Your task to perform on an android device: Search for "usb-c to usb-b" on ebay.com, select the first entry, and add it to the cart. Image 0: 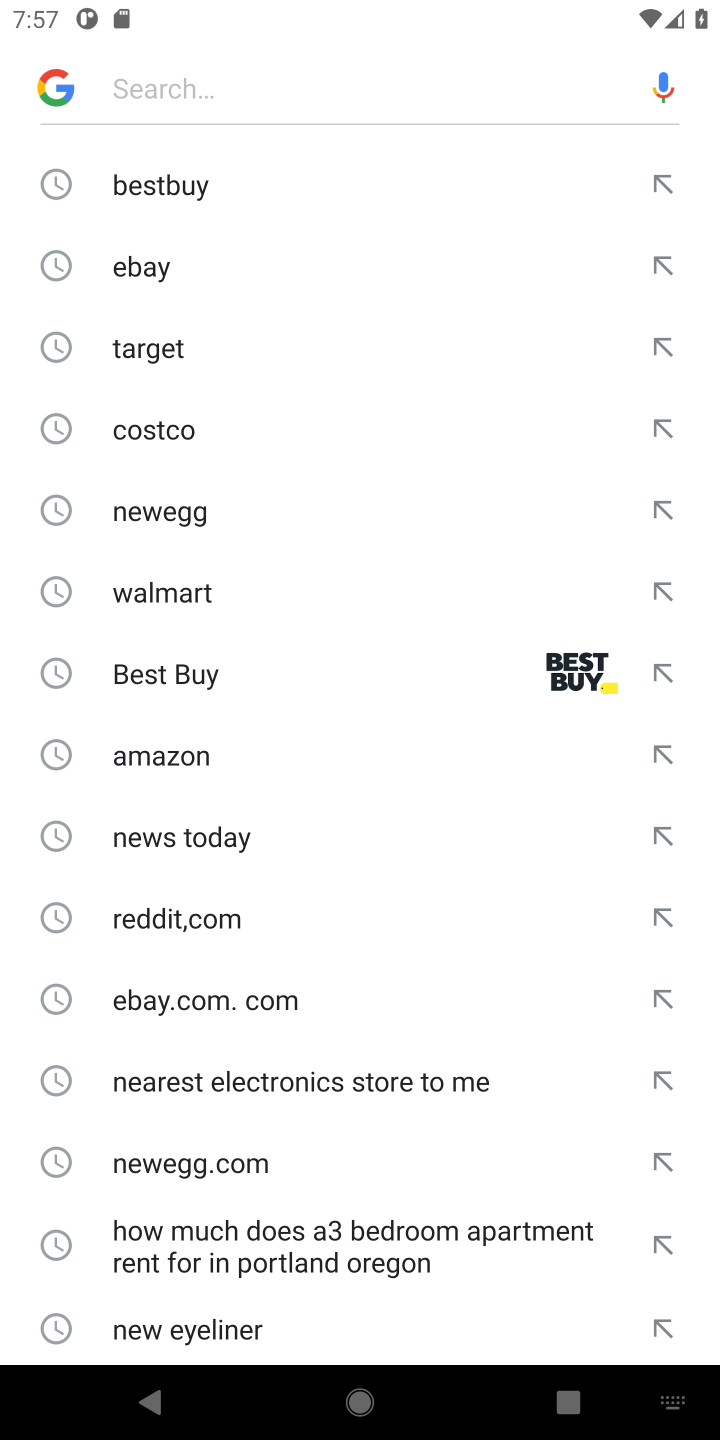
Step 0: press home button
Your task to perform on an android device: Search for "usb-c to usb-b" on ebay.com, select the first entry, and add it to the cart. Image 1: 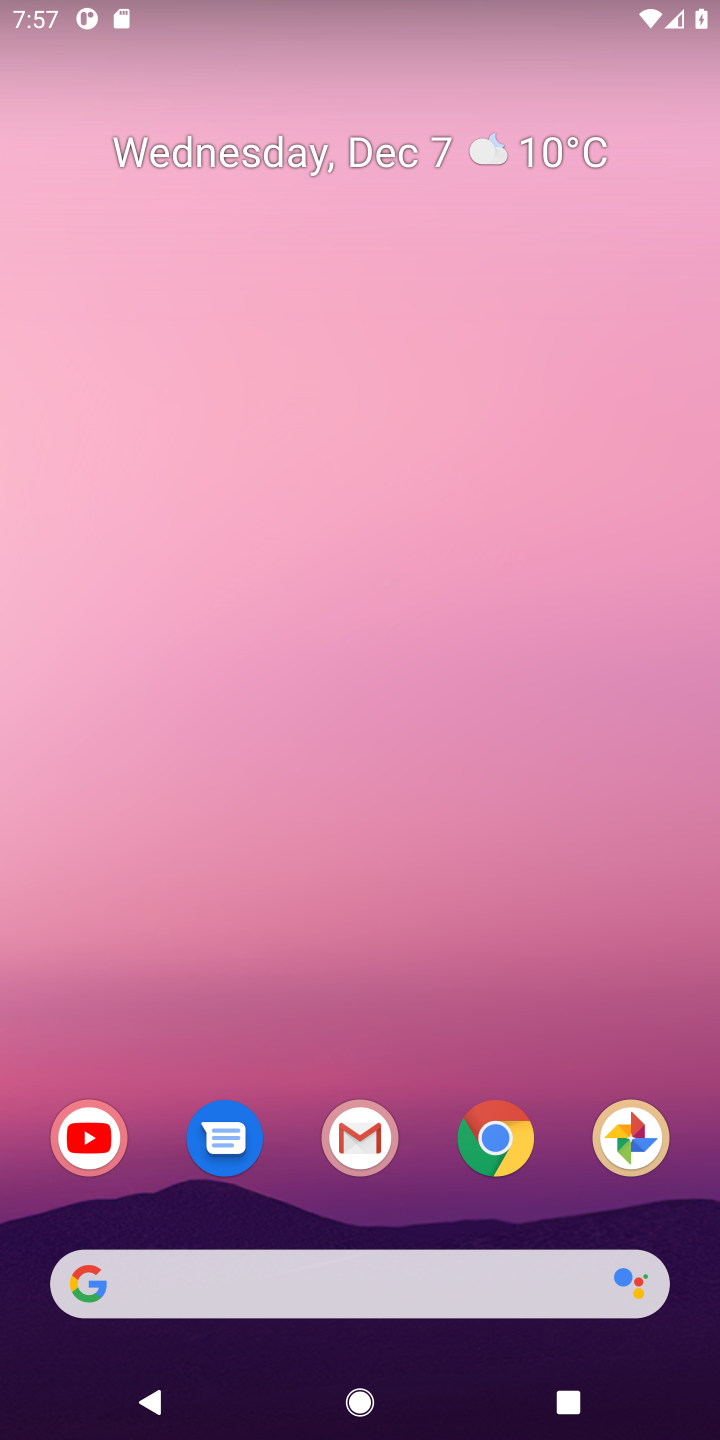
Step 1: click (250, 1280)
Your task to perform on an android device: Search for "usb-c to usb-b" on ebay.com, select the first entry, and add it to the cart. Image 2: 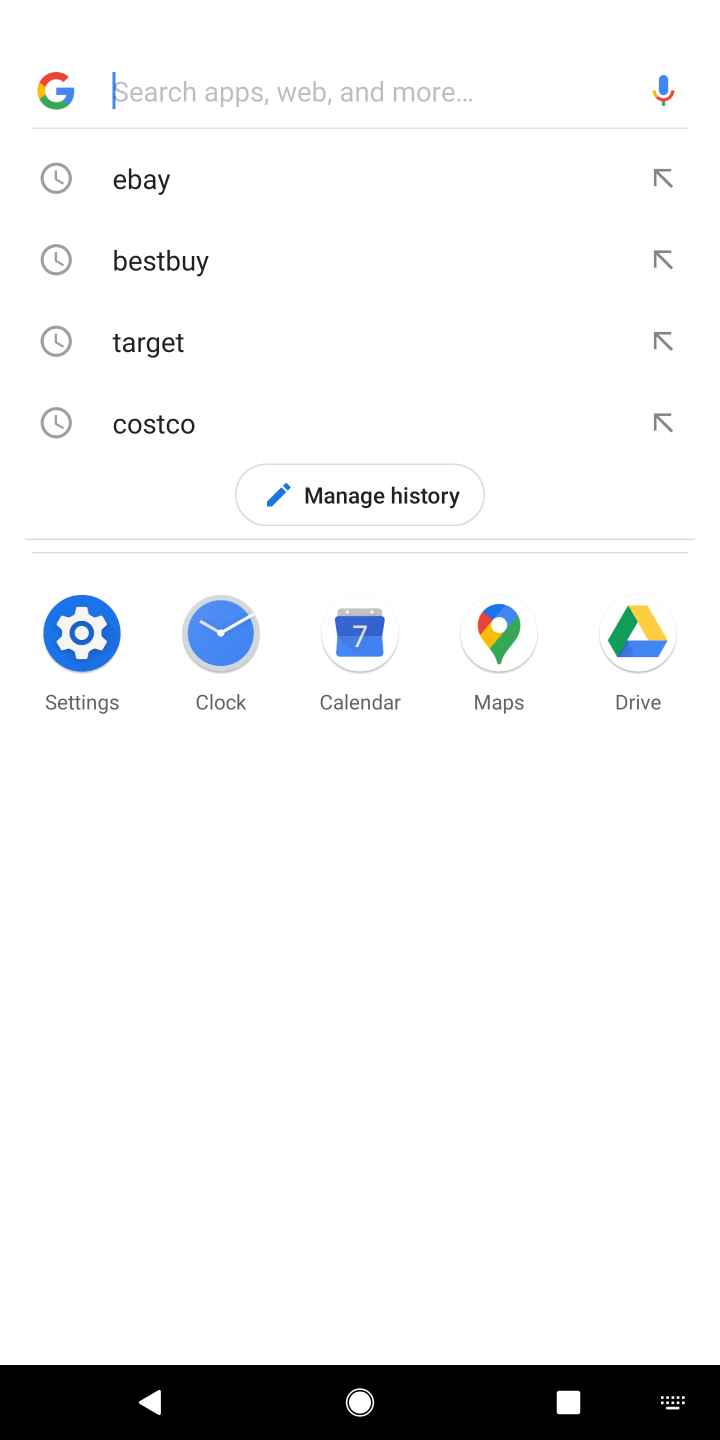
Step 2: click (145, 170)
Your task to perform on an android device: Search for "usb-c to usb-b" on ebay.com, select the first entry, and add it to the cart. Image 3: 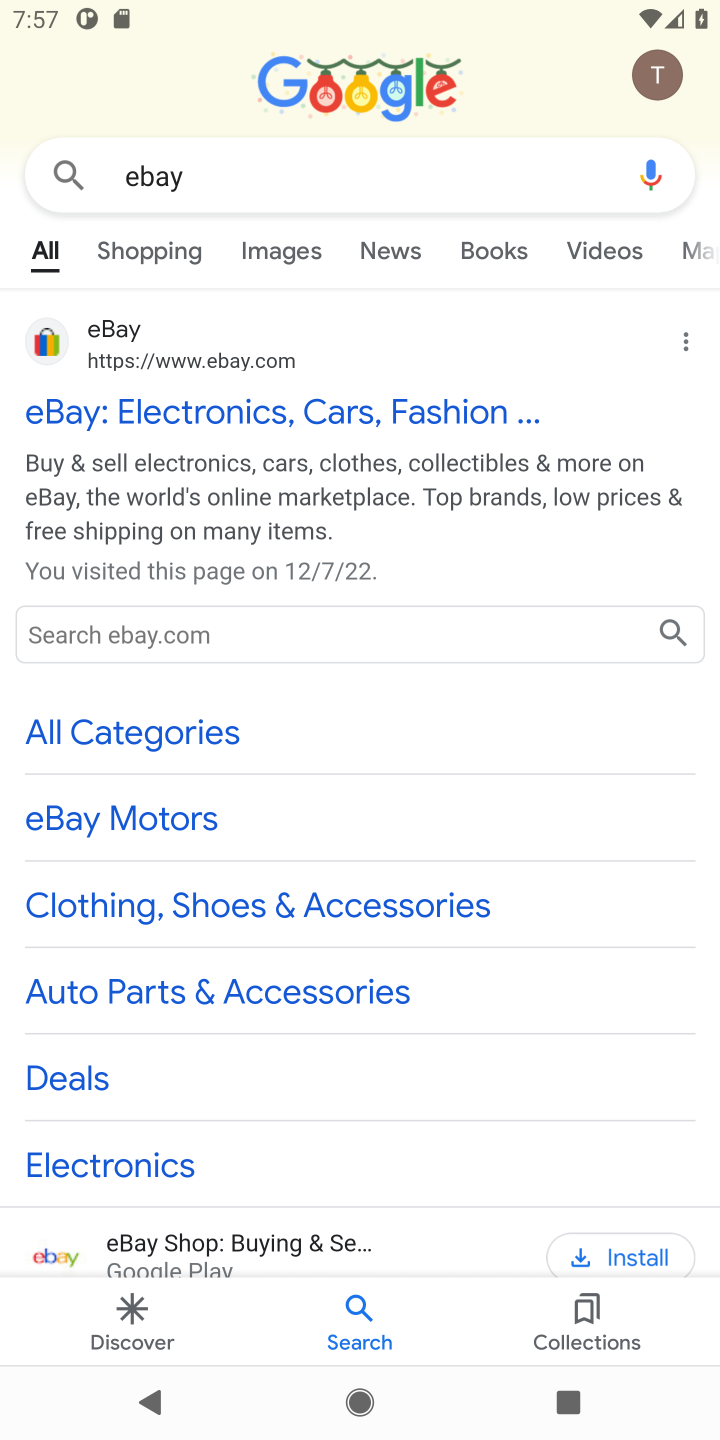
Step 3: click (352, 416)
Your task to perform on an android device: Search for "usb-c to usb-b" on ebay.com, select the first entry, and add it to the cart. Image 4: 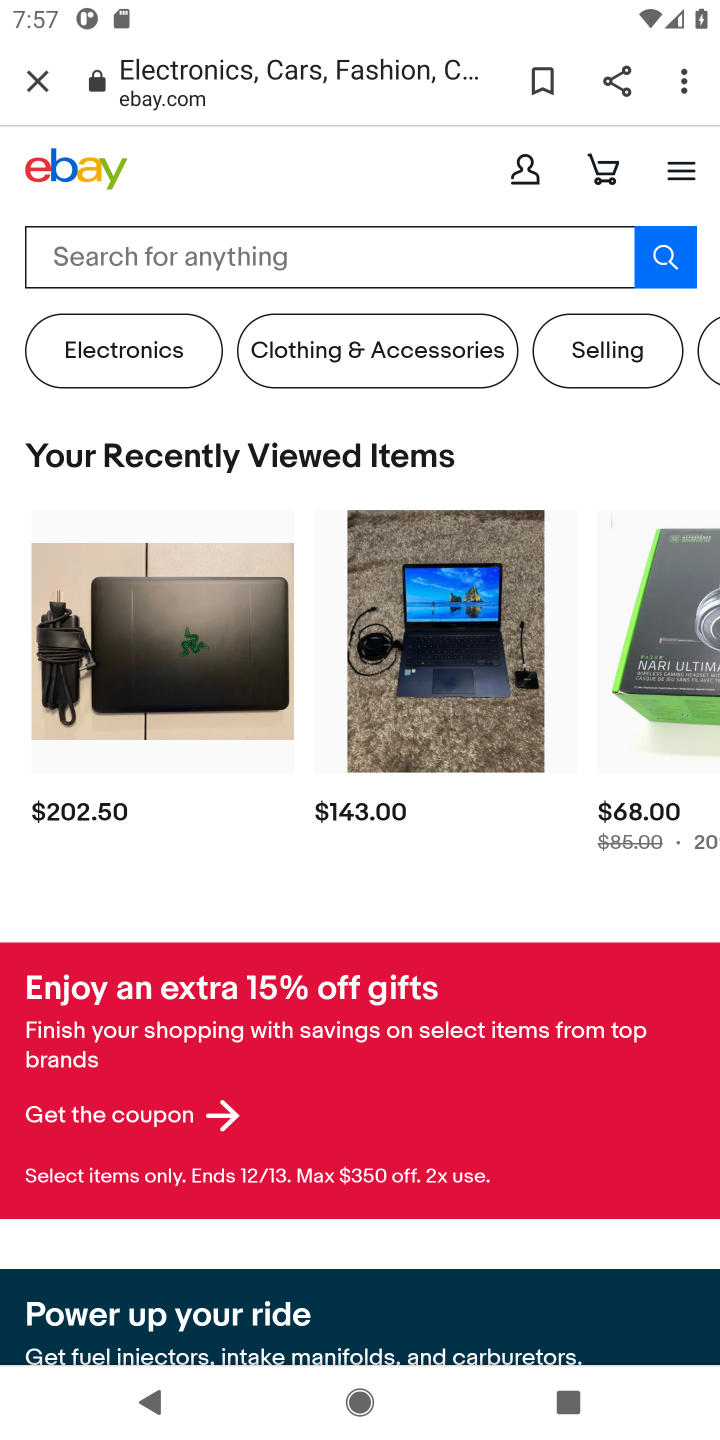
Step 4: click (327, 254)
Your task to perform on an android device: Search for "usb-c to usb-b" on ebay.com, select the first entry, and add it to the cart. Image 5: 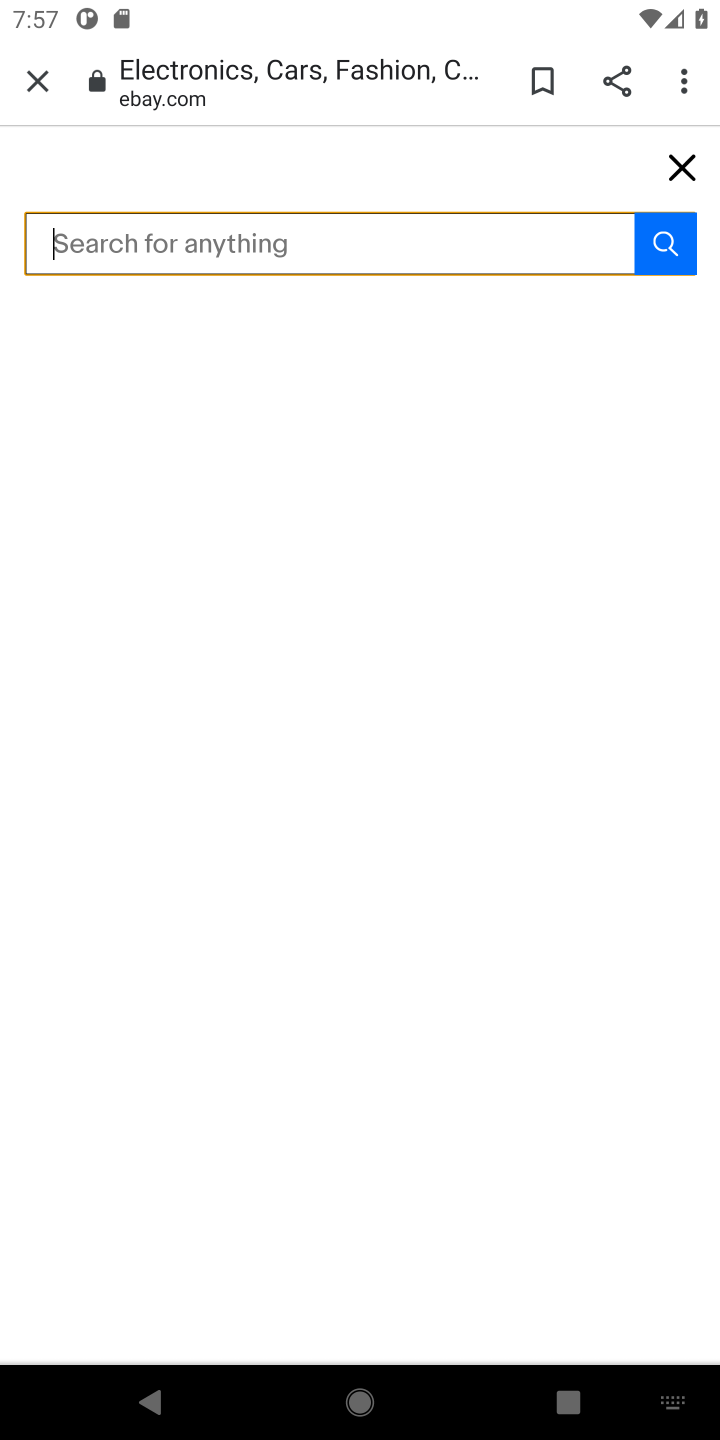
Step 5: type "usb-c to usb-b"
Your task to perform on an android device: Search for "usb-c to usb-b" on ebay.com, select the first entry, and add it to the cart. Image 6: 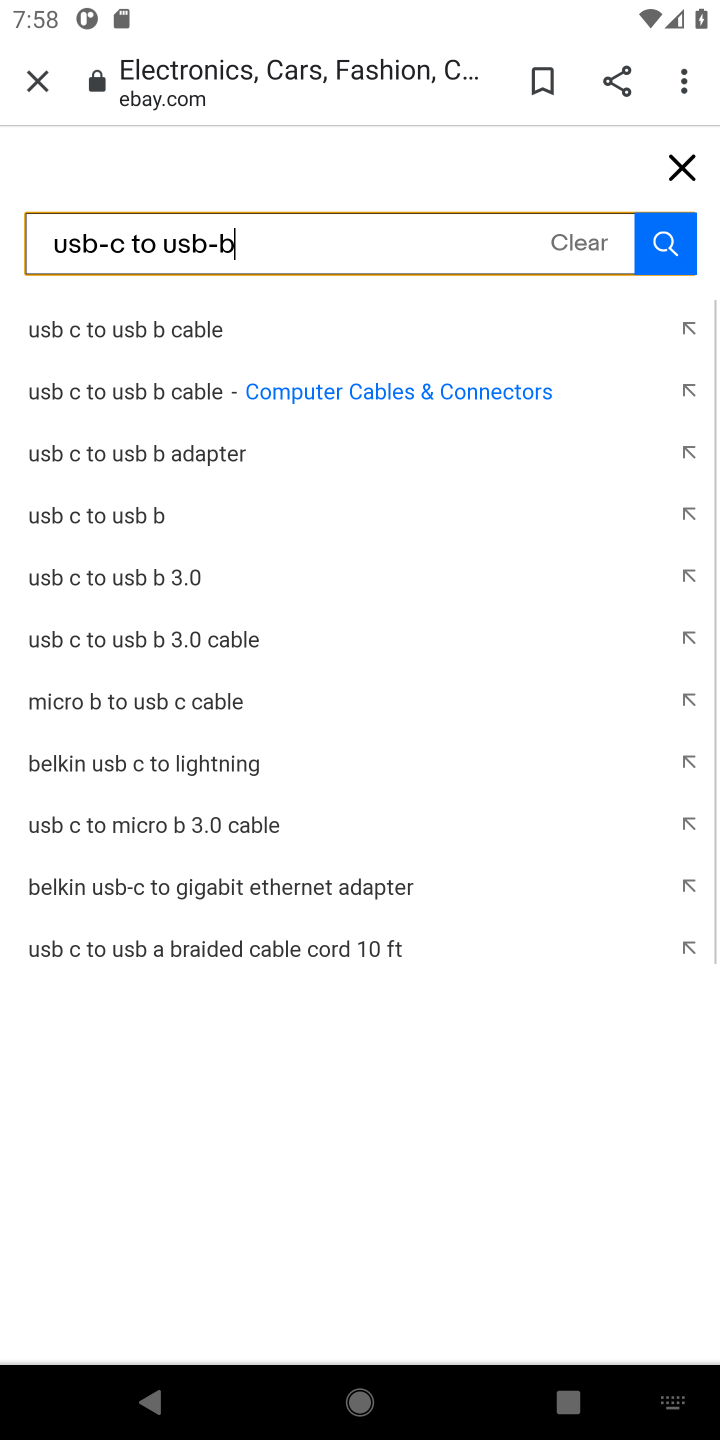
Step 6: press enter
Your task to perform on an android device: Search for "usb-c to usb-b" on ebay.com, select the first entry, and add it to the cart. Image 7: 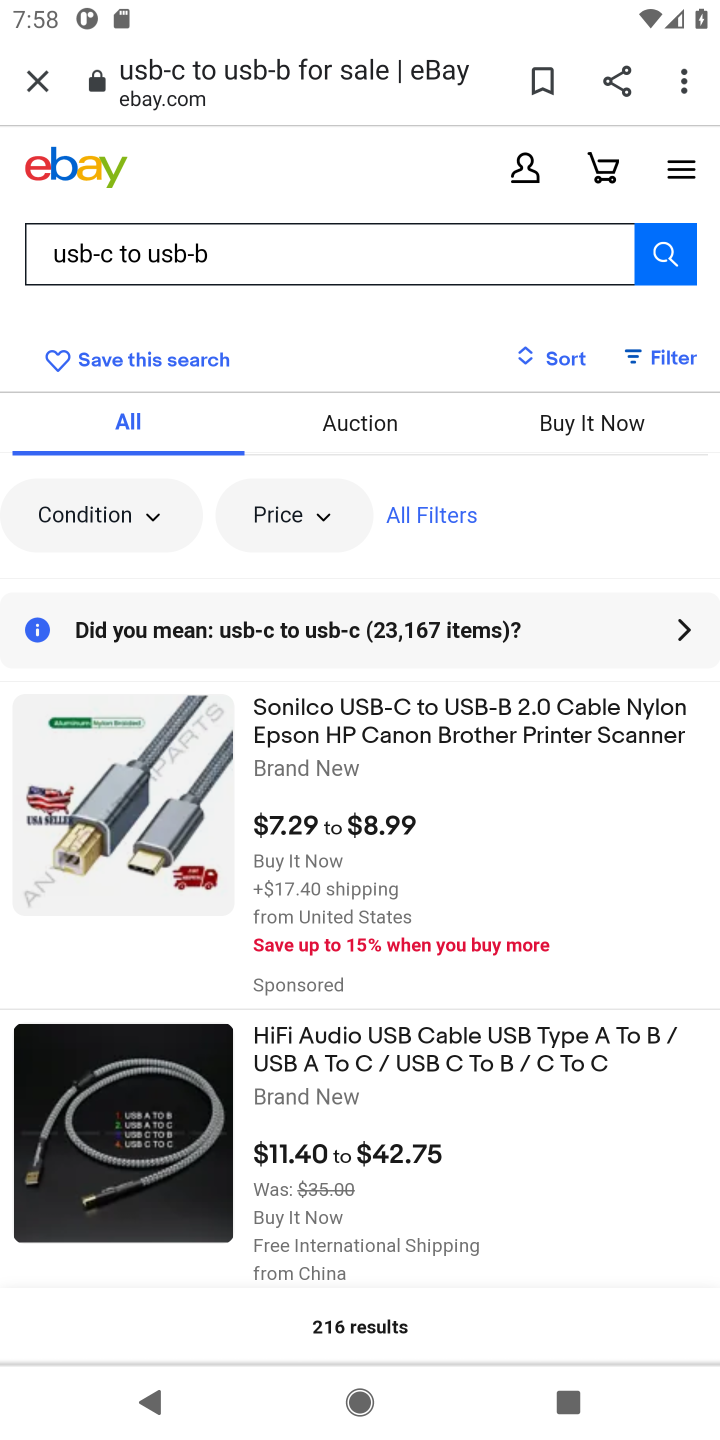
Step 7: click (406, 720)
Your task to perform on an android device: Search for "usb-c to usb-b" on ebay.com, select the first entry, and add it to the cart. Image 8: 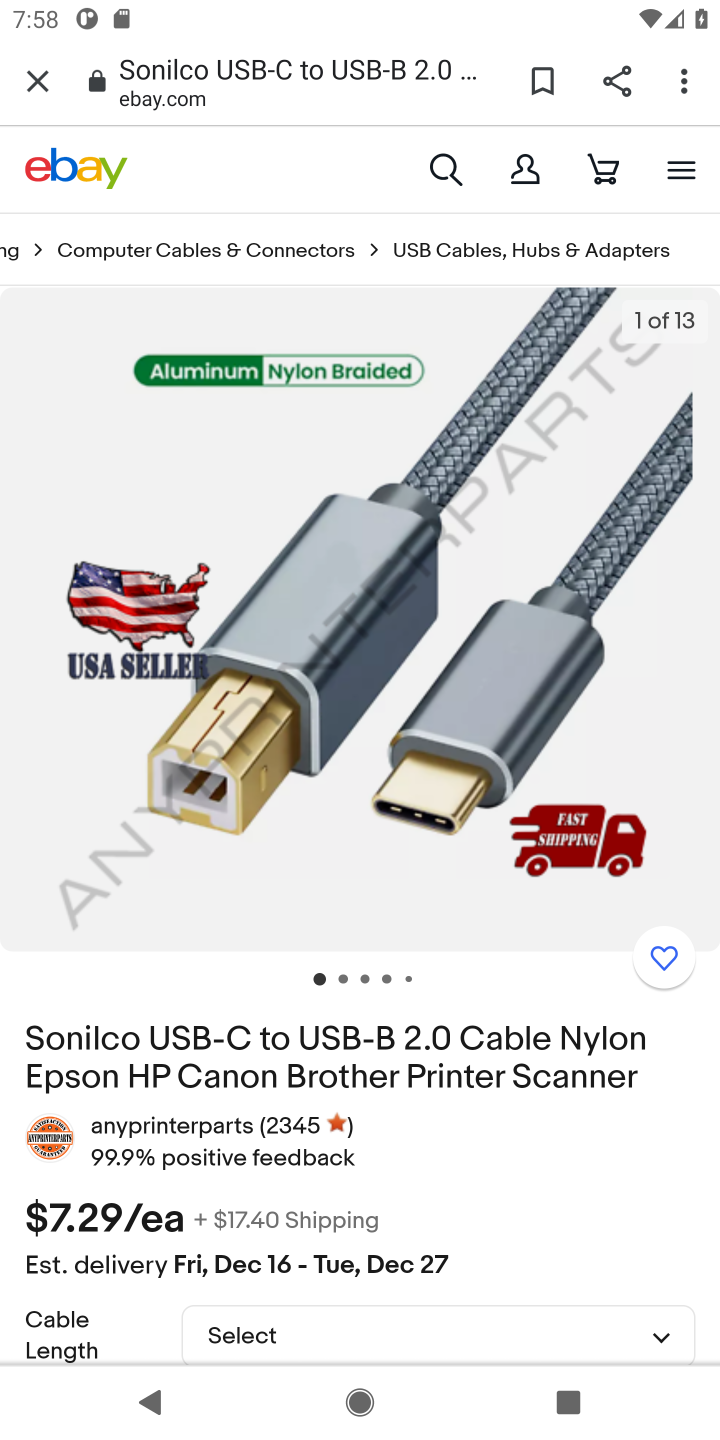
Step 8: drag from (497, 1155) to (490, 445)
Your task to perform on an android device: Search for "usb-c to usb-b" on ebay.com, select the first entry, and add it to the cart. Image 9: 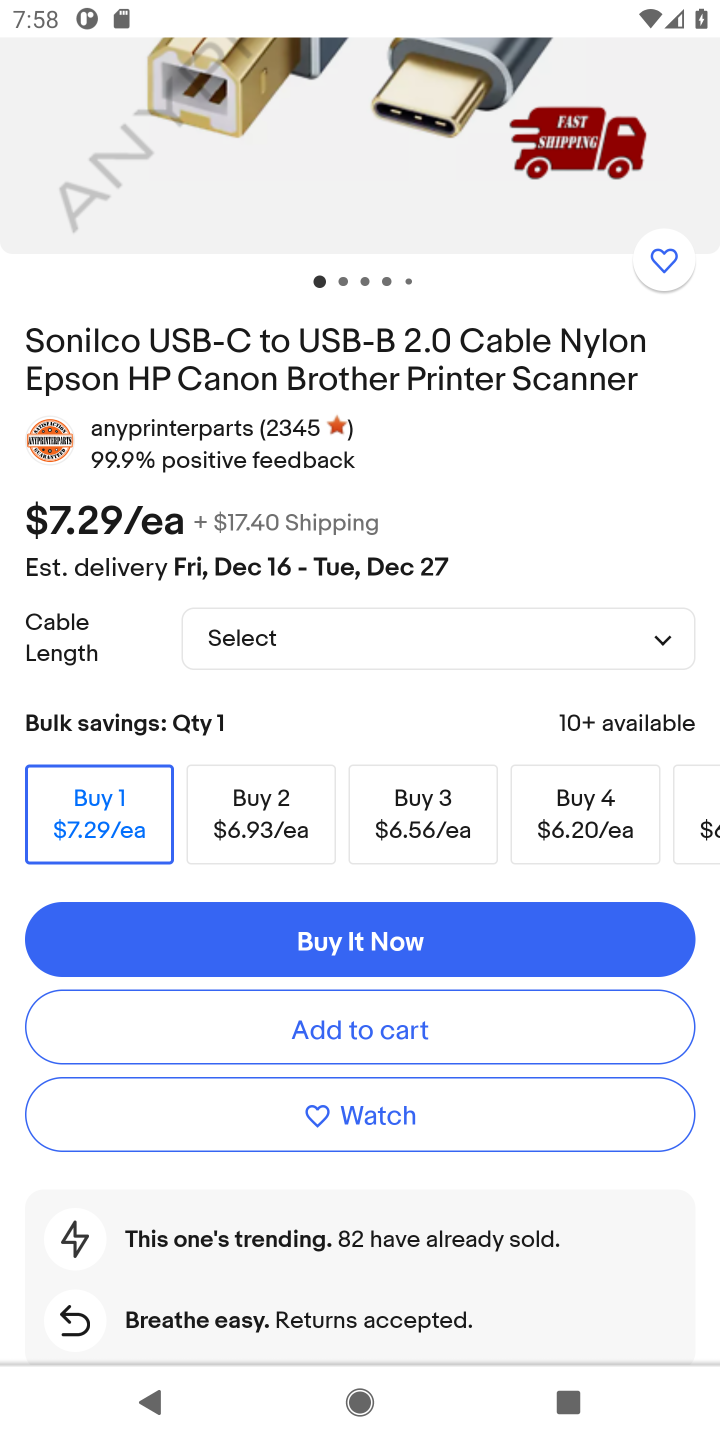
Step 9: click (388, 1029)
Your task to perform on an android device: Search for "usb-c to usb-b" on ebay.com, select the first entry, and add it to the cart. Image 10: 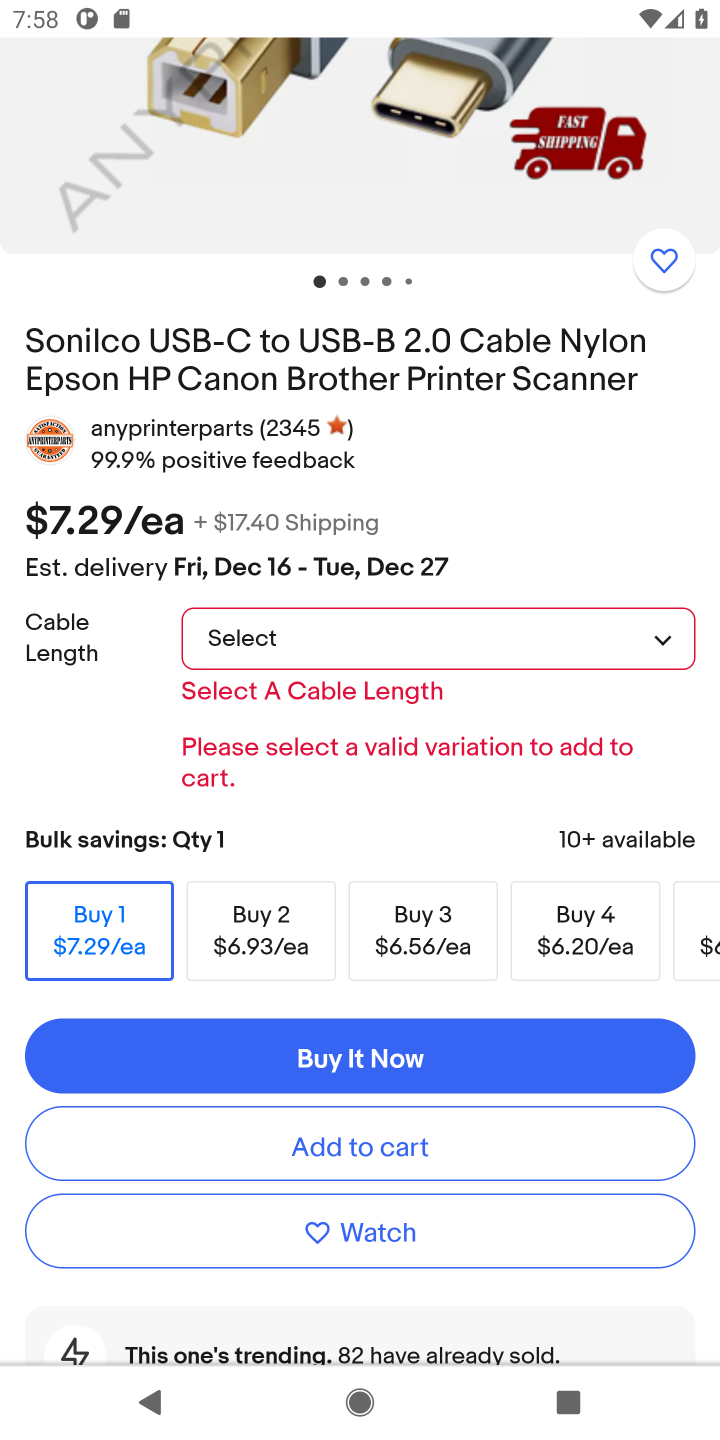
Step 10: click (656, 631)
Your task to perform on an android device: Search for "usb-c to usb-b" on ebay.com, select the first entry, and add it to the cart. Image 11: 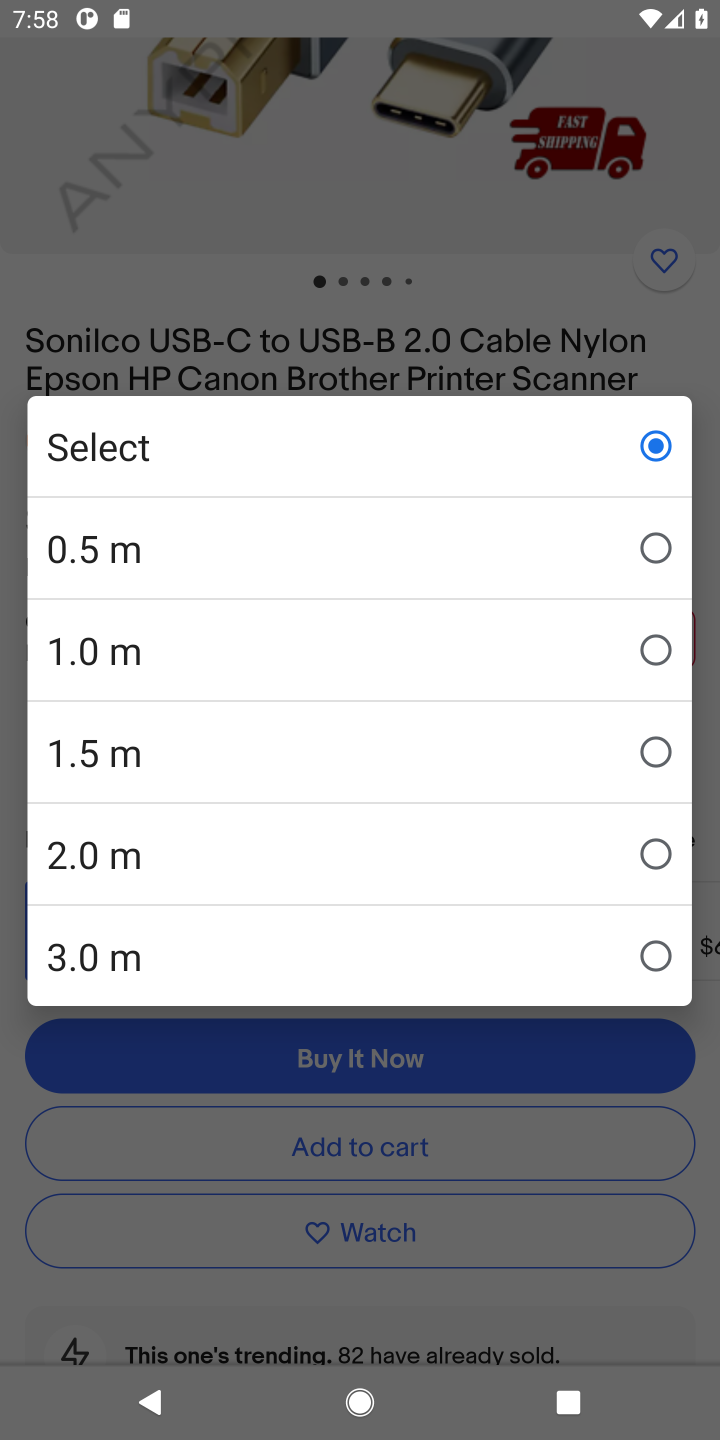
Step 11: click (654, 652)
Your task to perform on an android device: Search for "usb-c to usb-b" on ebay.com, select the first entry, and add it to the cart. Image 12: 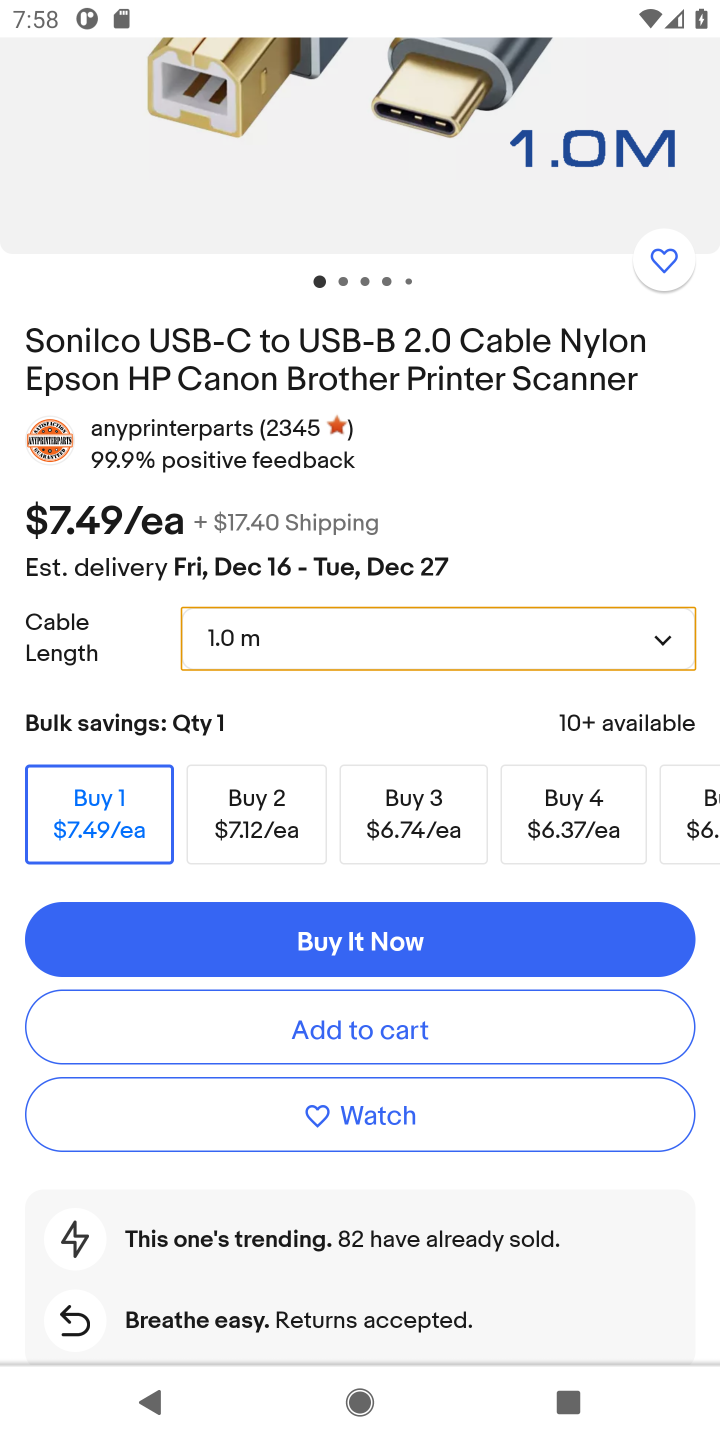
Step 12: click (366, 1033)
Your task to perform on an android device: Search for "usb-c to usb-b" on ebay.com, select the first entry, and add it to the cart. Image 13: 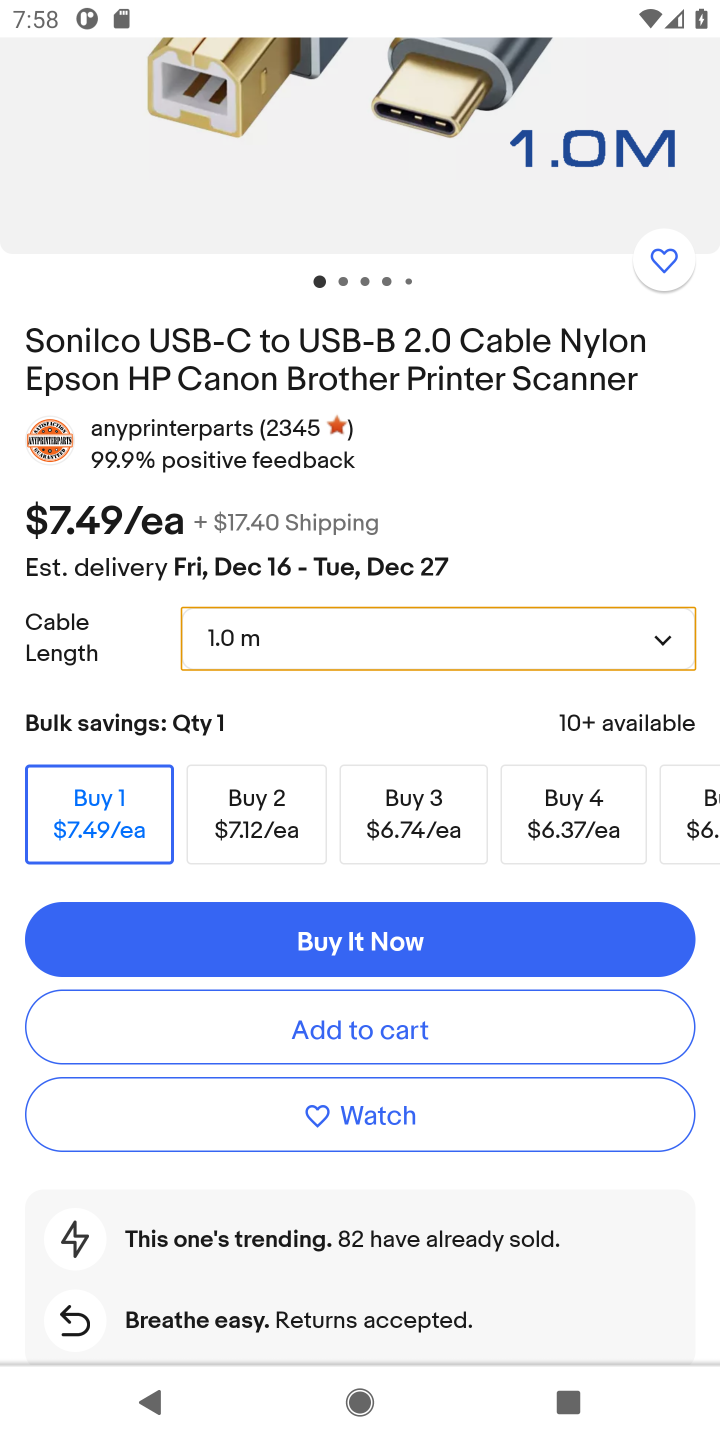
Step 13: click (352, 1028)
Your task to perform on an android device: Search for "usb-c to usb-b" on ebay.com, select the first entry, and add it to the cart. Image 14: 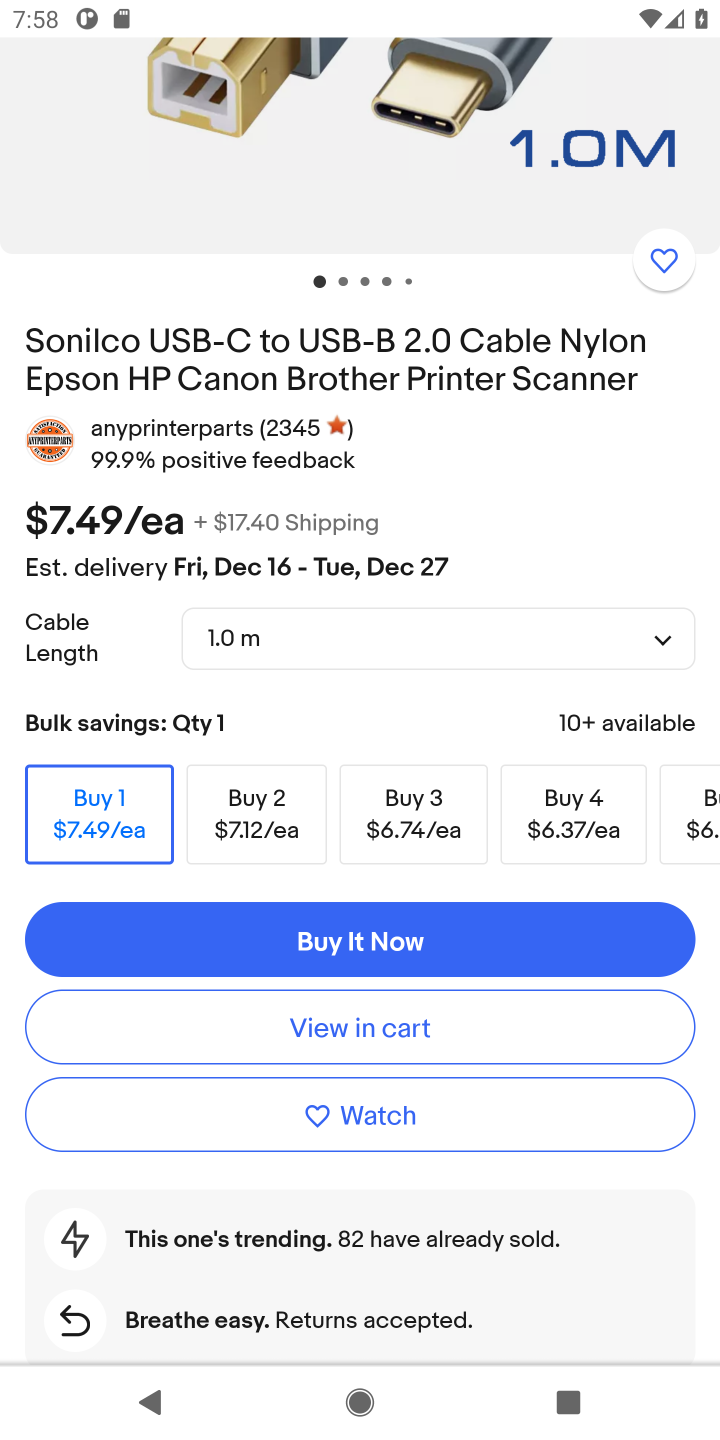
Step 14: task complete